Your task to perform on an android device: Open wifi settings Image 0: 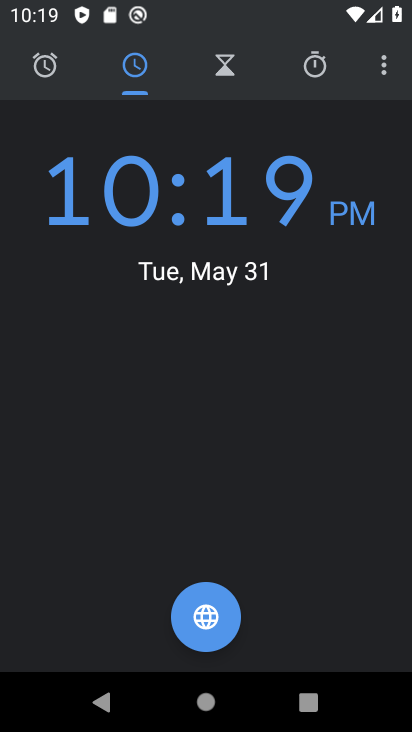
Step 0: press home button
Your task to perform on an android device: Open wifi settings Image 1: 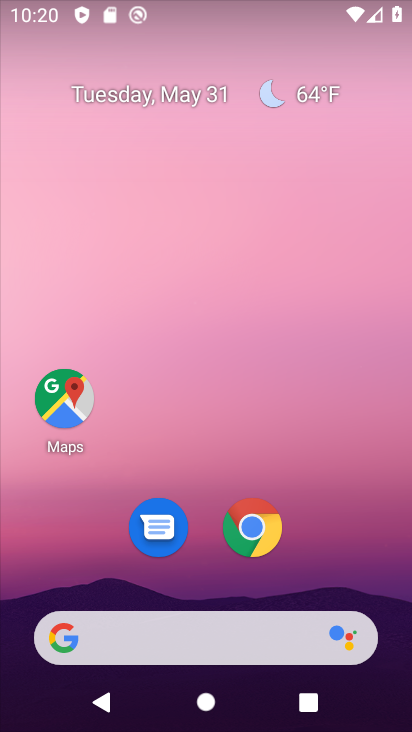
Step 1: drag from (221, 266) to (344, 38)
Your task to perform on an android device: Open wifi settings Image 2: 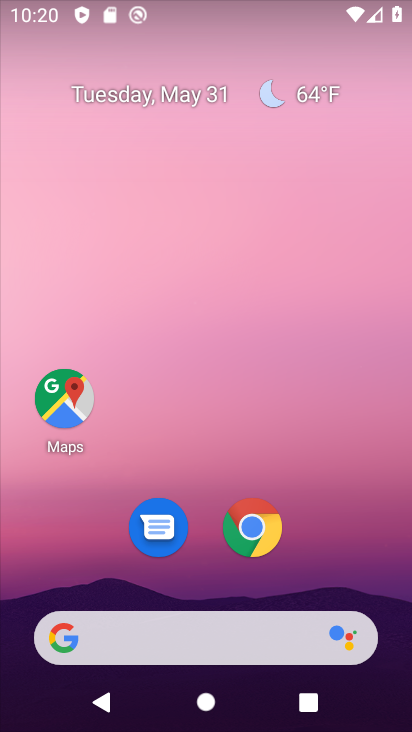
Step 2: drag from (151, 701) to (296, 10)
Your task to perform on an android device: Open wifi settings Image 3: 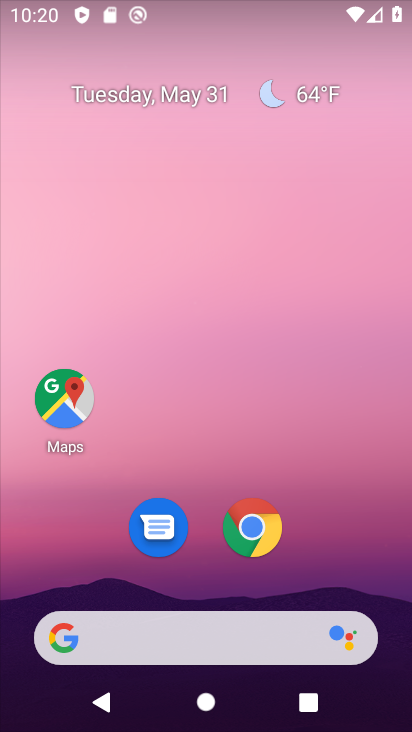
Step 3: drag from (172, 718) to (407, 123)
Your task to perform on an android device: Open wifi settings Image 4: 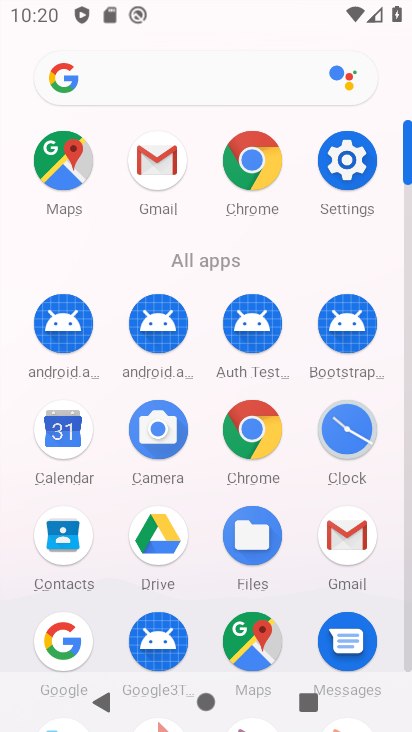
Step 4: click (345, 152)
Your task to perform on an android device: Open wifi settings Image 5: 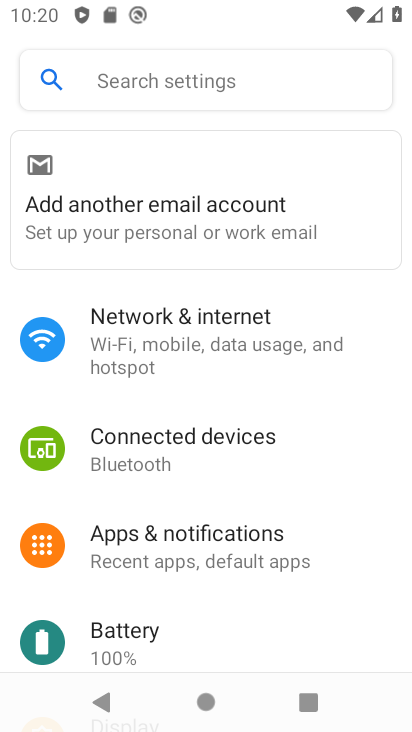
Step 5: drag from (323, 619) to (386, 4)
Your task to perform on an android device: Open wifi settings Image 6: 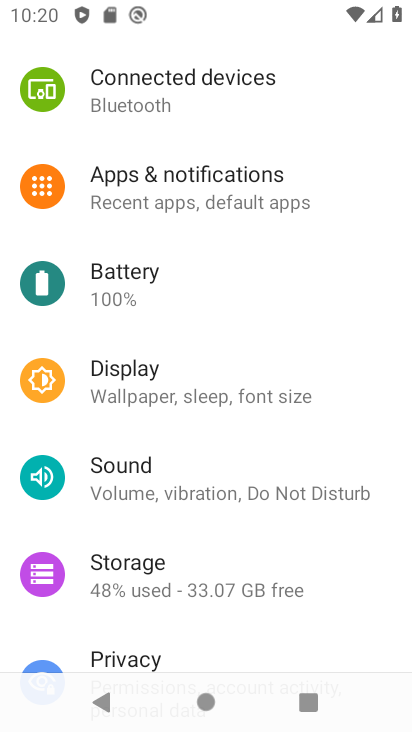
Step 6: drag from (288, 139) to (224, 709)
Your task to perform on an android device: Open wifi settings Image 7: 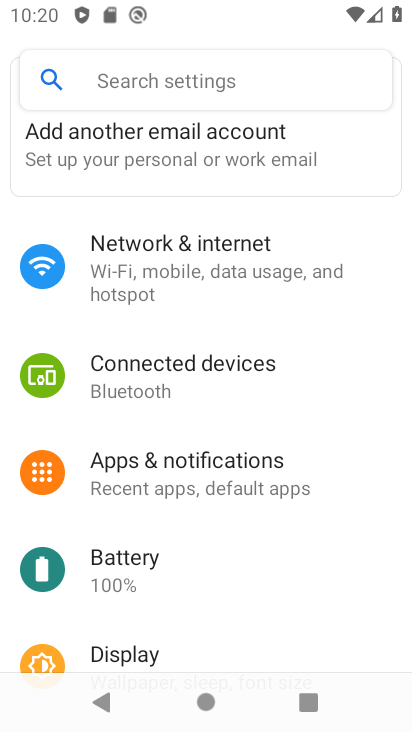
Step 7: click (259, 256)
Your task to perform on an android device: Open wifi settings Image 8: 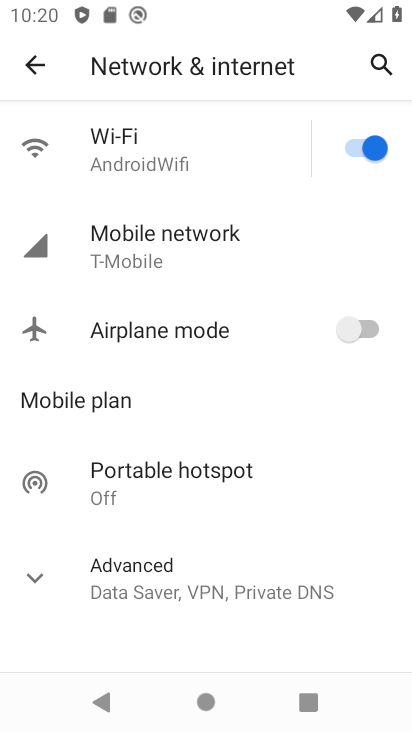
Step 8: click (178, 151)
Your task to perform on an android device: Open wifi settings Image 9: 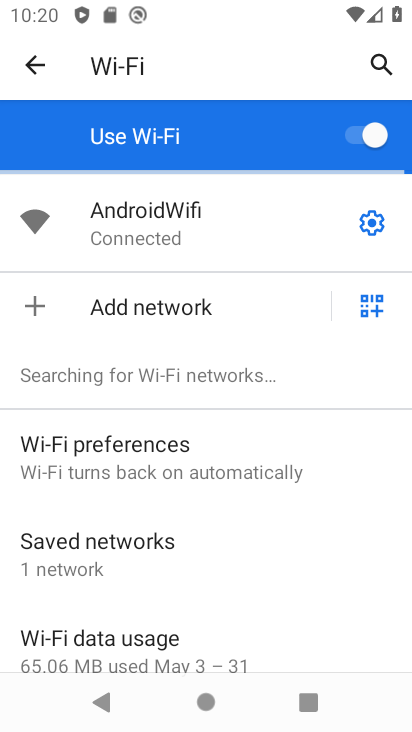
Step 9: click (366, 225)
Your task to perform on an android device: Open wifi settings Image 10: 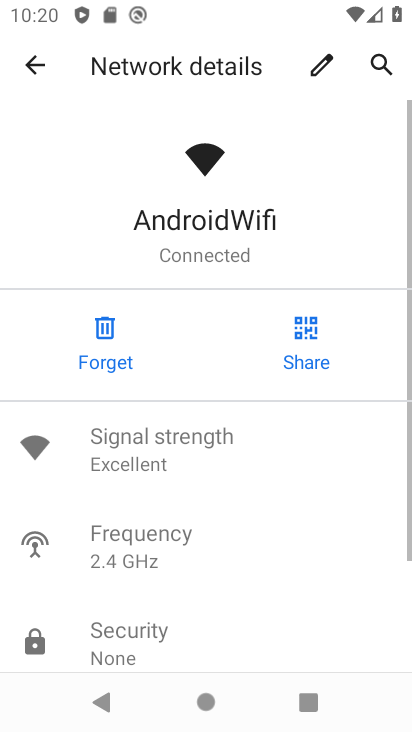
Step 10: task complete